Your task to perform on an android device: toggle improve location accuracy Image 0: 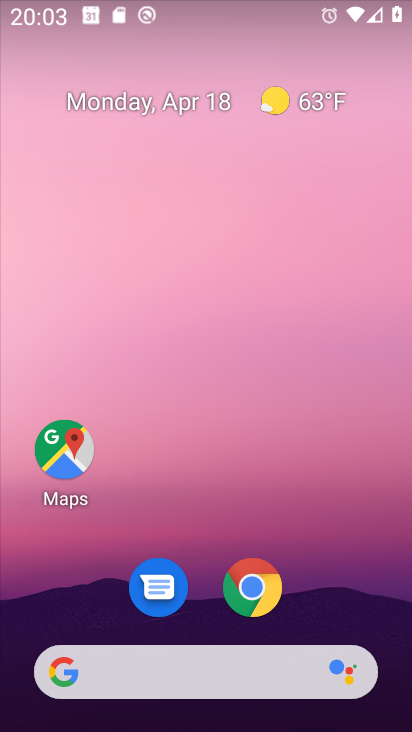
Step 0: drag from (337, 612) to (209, 102)
Your task to perform on an android device: toggle improve location accuracy Image 1: 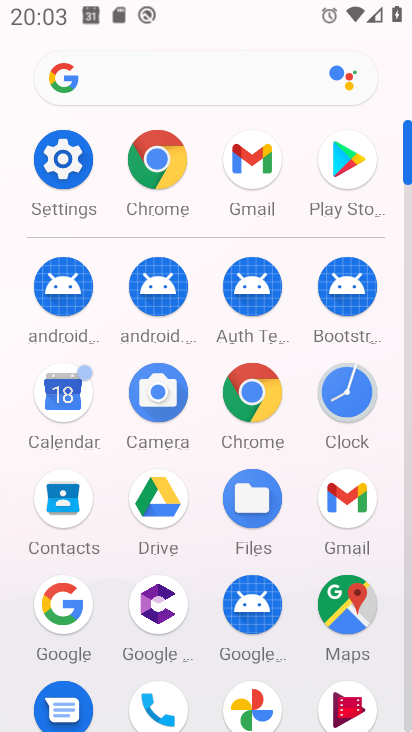
Step 1: click (83, 183)
Your task to perform on an android device: toggle improve location accuracy Image 2: 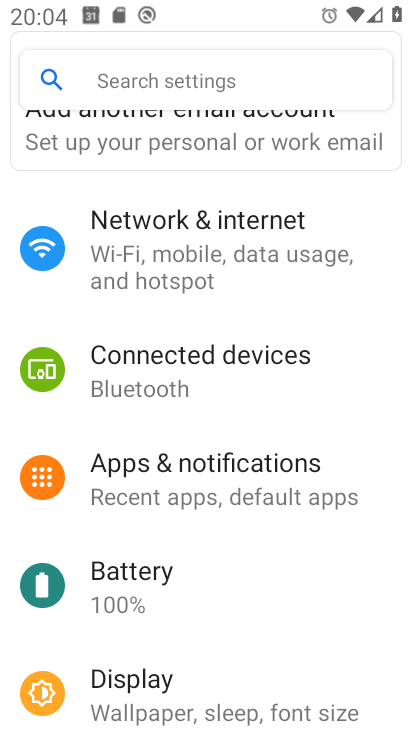
Step 2: drag from (242, 609) to (217, 297)
Your task to perform on an android device: toggle improve location accuracy Image 3: 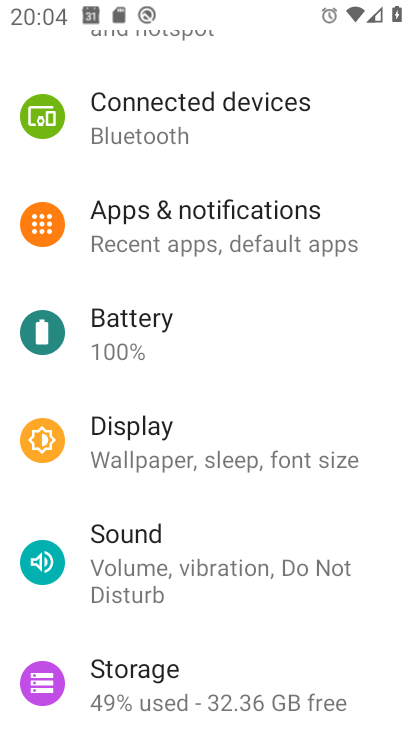
Step 3: drag from (197, 502) to (204, 328)
Your task to perform on an android device: toggle improve location accuracy Image 4: 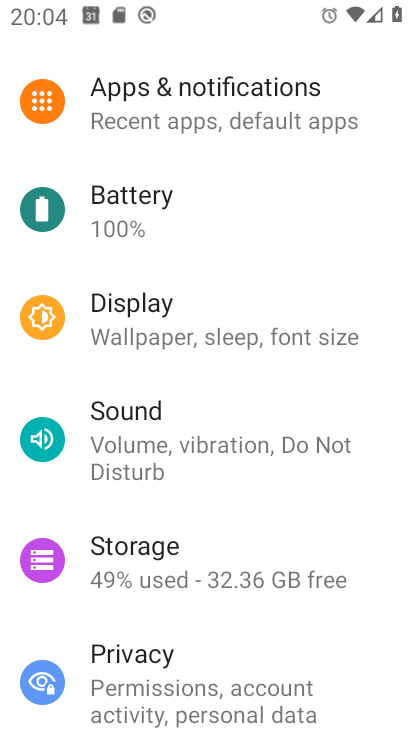
Step 4: drag from (191, 508) to (203, 245)
Your task to perform on an android device: toggle improve location accuracy Image 5: 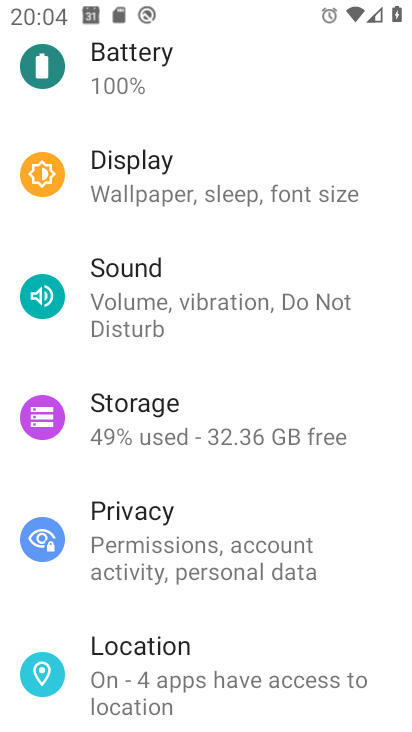
Step 5: click (205, 654)
Your task to perform on an android device: toggle improve location accuracy Image 6: 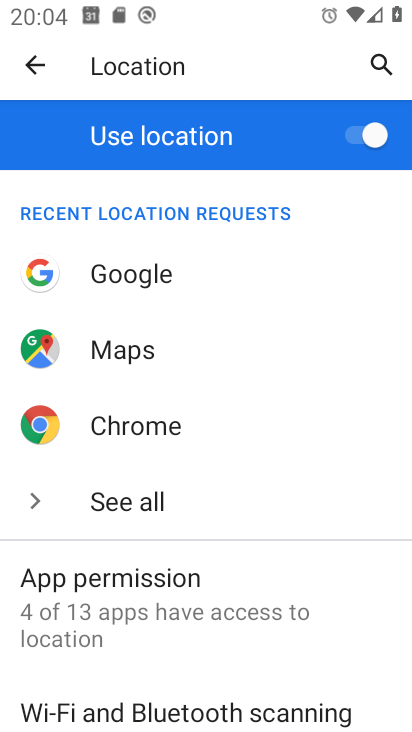
Step 6: drag from (205, 654) to (223, 334)
Your task to perform on an android device: toggle improve location accuracy Image 7: 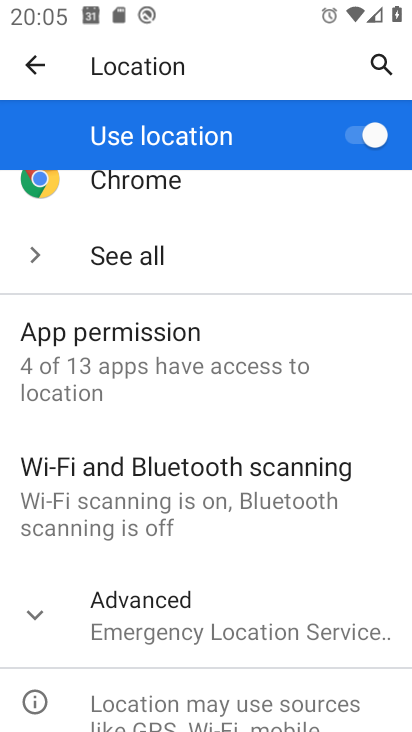
Step 7: click (190, 602)
Your task to perform on an android device: toggle improve location accuracy Image 8: 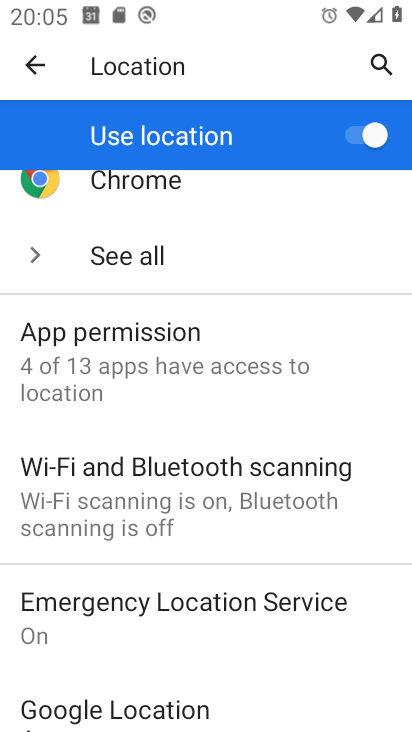
Step 8: drag from (190, 561) to (197, 391)
Your task to perform on an android device: toggle improve location accuracy Image 9: 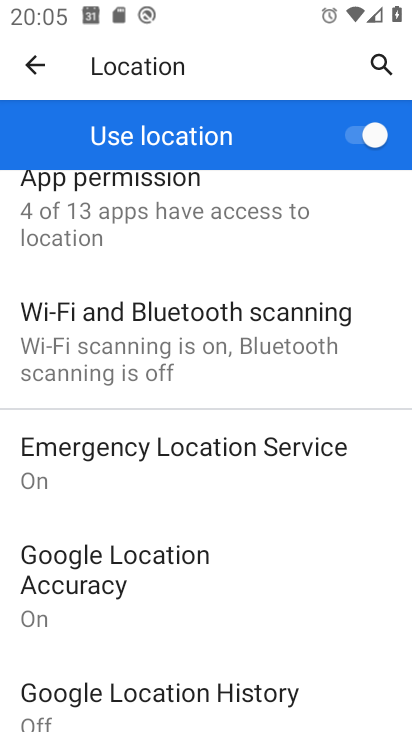
Step 9: click (198, 620)
Your task to perform on an android device: toggle improve location accuracy Image 10: 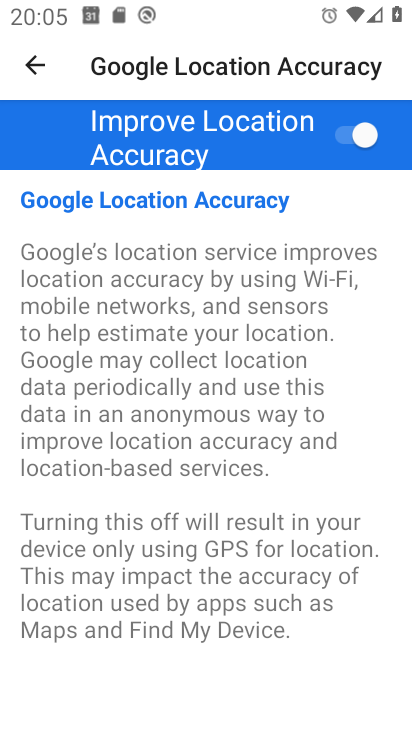
Step 10: task complete